Your task to perform on an android device: Open the stopwatch Image 0: 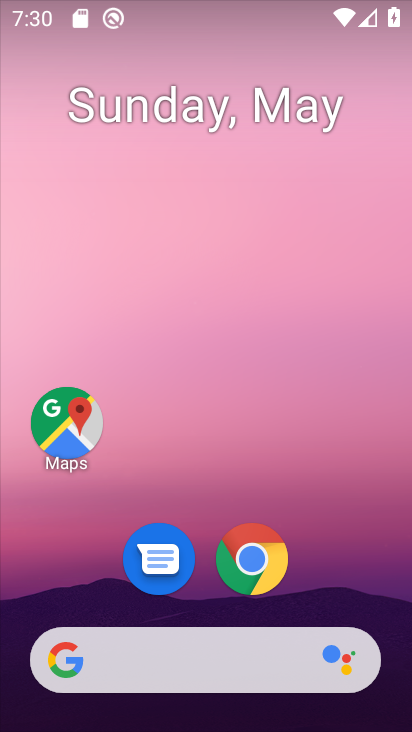
Step 0: press home button
Your task to perform on an android device: Open the stopwatch Image 1: 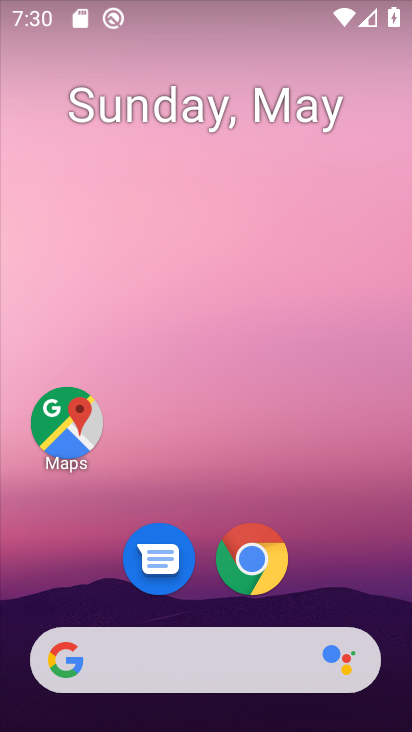
Step 1: drag from (215, 655) to (304, 120)
Your task to perform on an android device: Open the stopwatch Image 2: 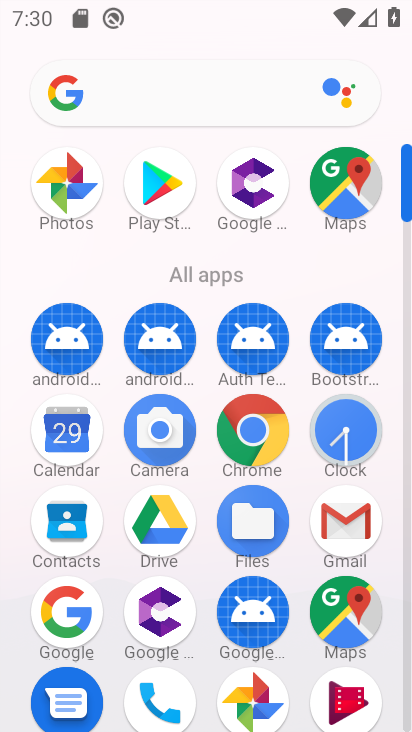
Step 2: click (347, 439)
Your task to perform on an android device: Open the stopwatch Image 3: 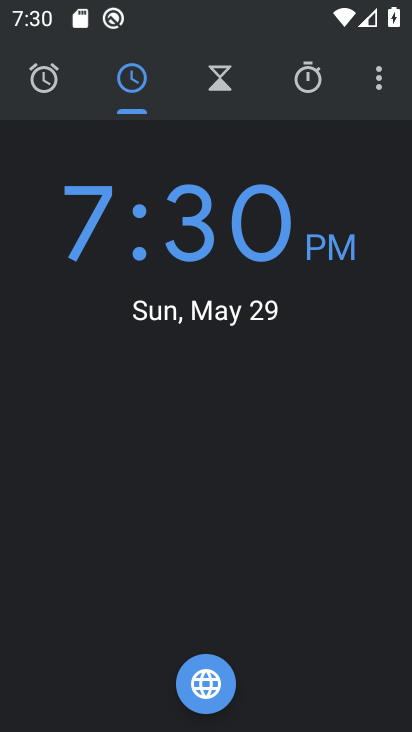
Step 3: click (310, 83)
Your task to perform on an android device: Open the stopwatch Image 4: 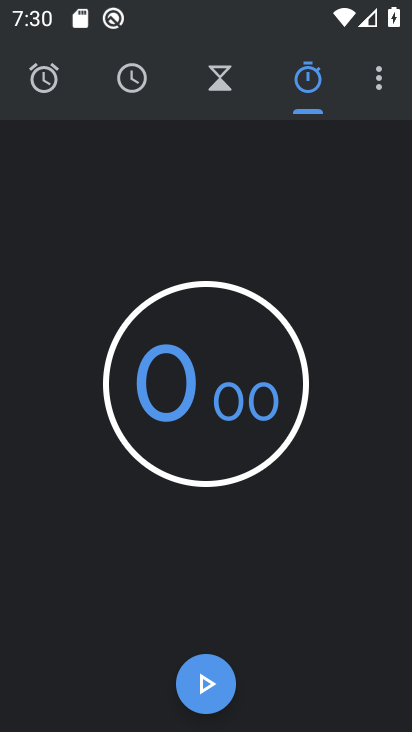
Step 4: task complete